Your task to perform on an android device: When is my next meeting? Image 0: 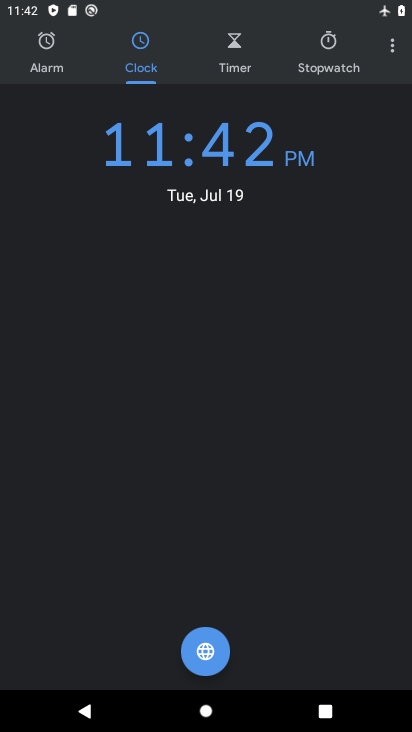
Step 0: press home button
Your task to perform on an android device: When is my next meeting? Image 1: 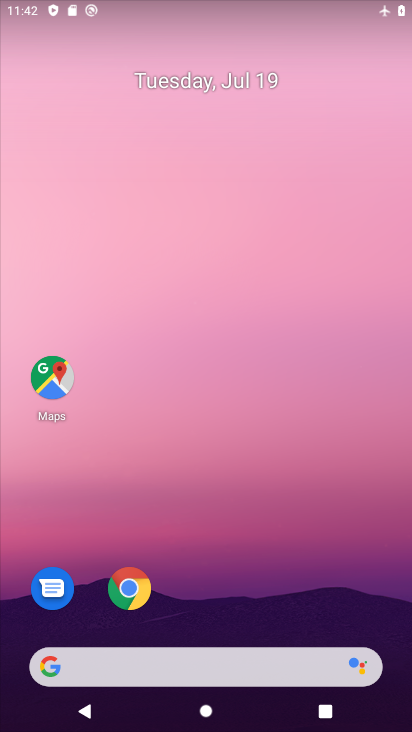
Step 1: drag from (313, 563) to (306, 211)
Your task to perform on an android device: When is my next meeting? Image 2: 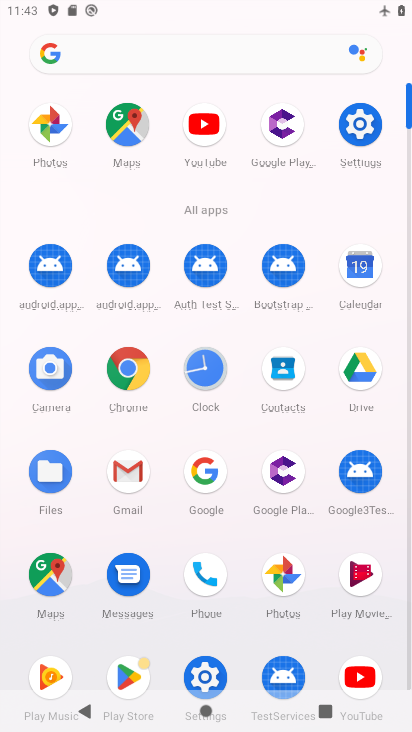
Step 2: click (355, 254)
Your task to perform on an android device: When is my next meeting? Image 3: 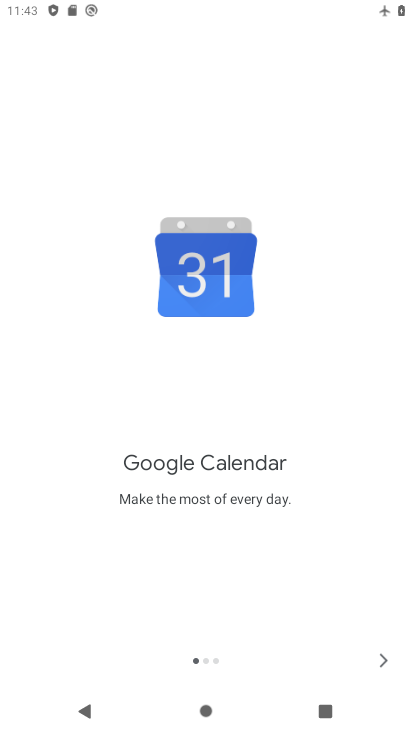
Step 3: click (387, 660)
Your task to perform on an android device: When is my next meeting? Image 4: 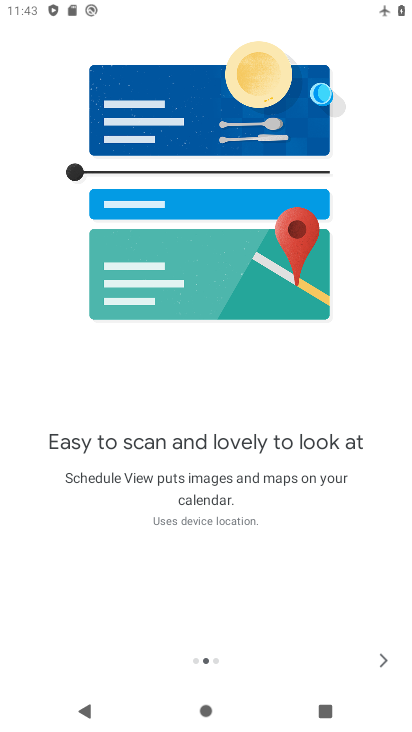
Step 4: click (384, 663)
Your task to perform on an android device: When is my next meeting? Image 5: 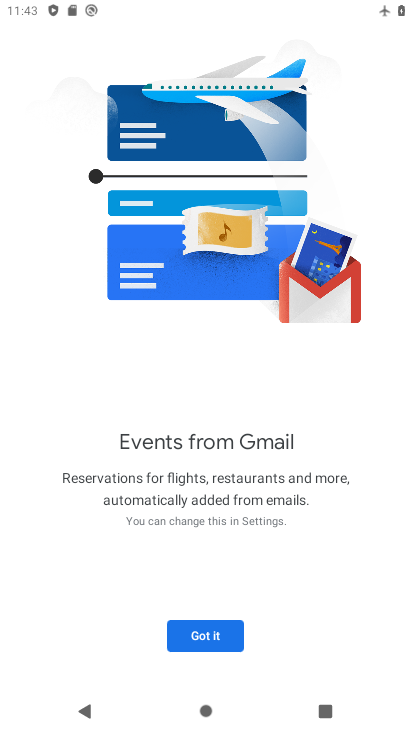
Step 5: click (188, 632)
Your task to perform on an android device: When is my next meeting? Image 6: 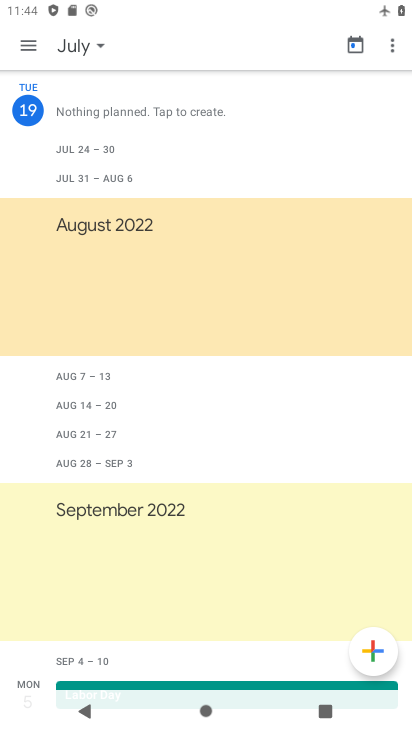
Step 6: task complete